Your task to perform on an android device: Open network settings Image 0: 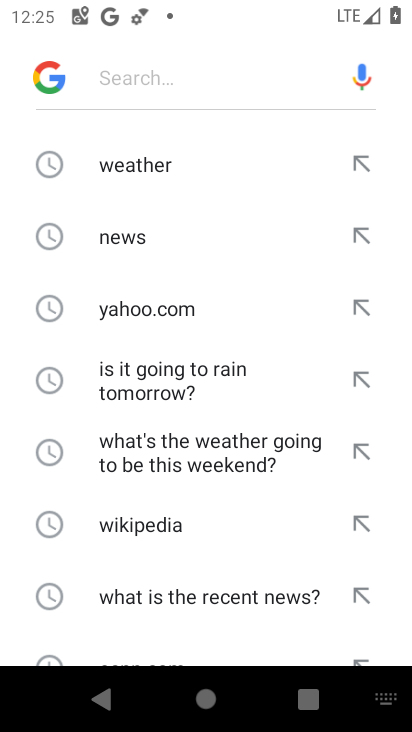
Step 0: press home button
Your task to perform on an android device: Open network settings Image 1: 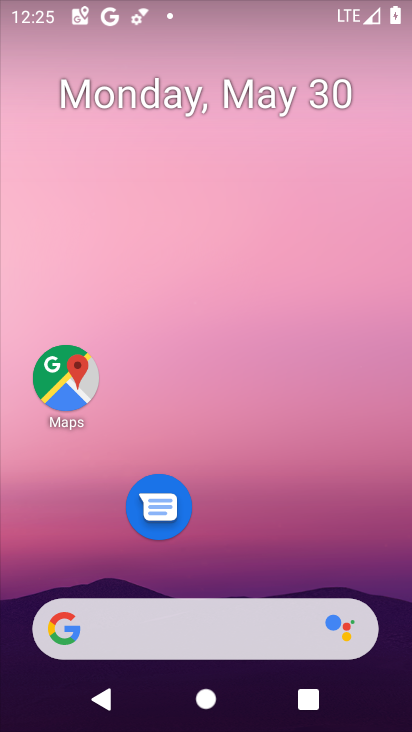
Step 1: drag from (326, 560) to (313, 29)
Your task to perform on an android device: Open network settings Image 2: 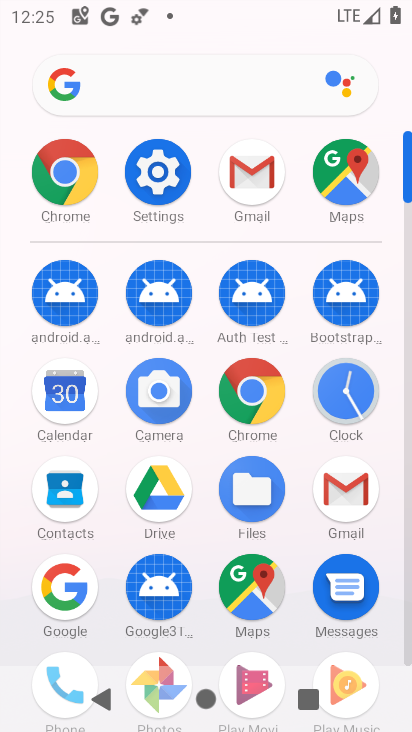
Step 2: click (152, 171)
Your task to perform on an android device: Open network settings Image 3: 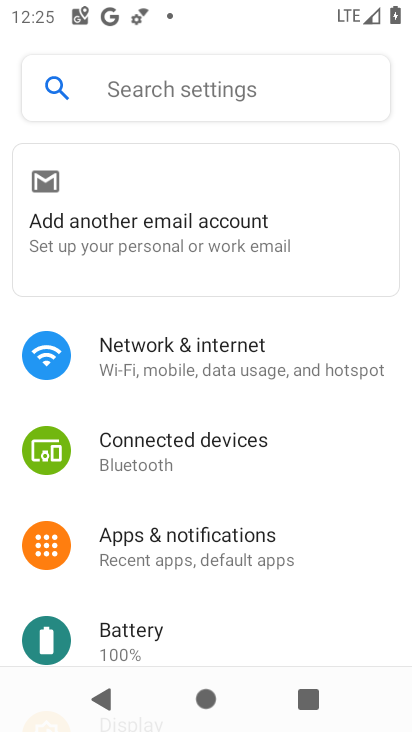
Step 3: click (227, 352)
Your task to perform on an android device: Open network settings Image 4: 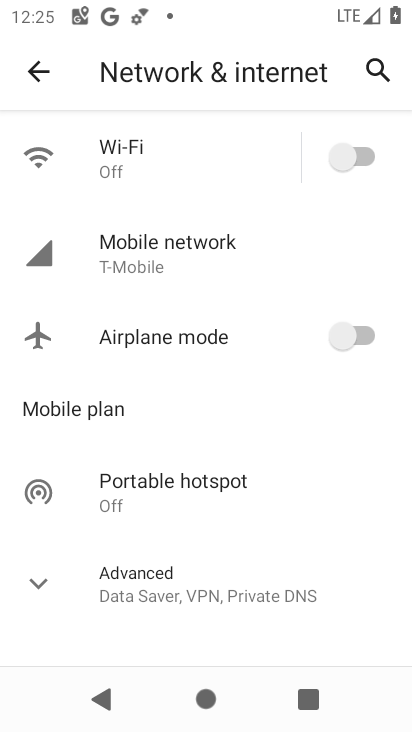
Step 4: click (183, 352)
Your task to perform on an android device: Open network settings Image 5: 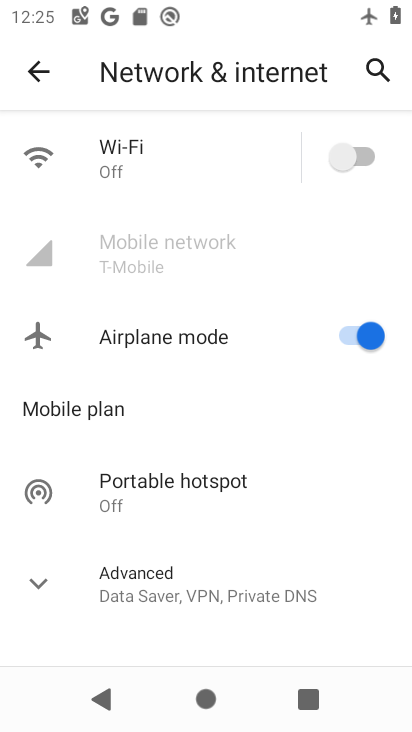
Step 5: task complete